Your task to perform on an android device: What is the news today? Image 0: 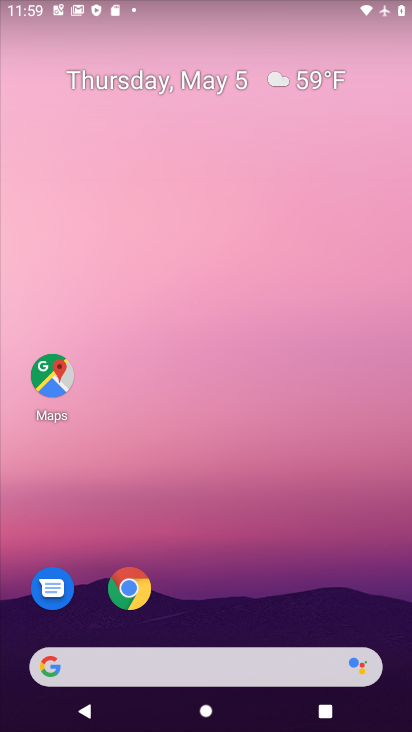
Step 0: drag from (9, 234) to (406, 208)
Your task to perform on an android device: What is the news today? Image 1: 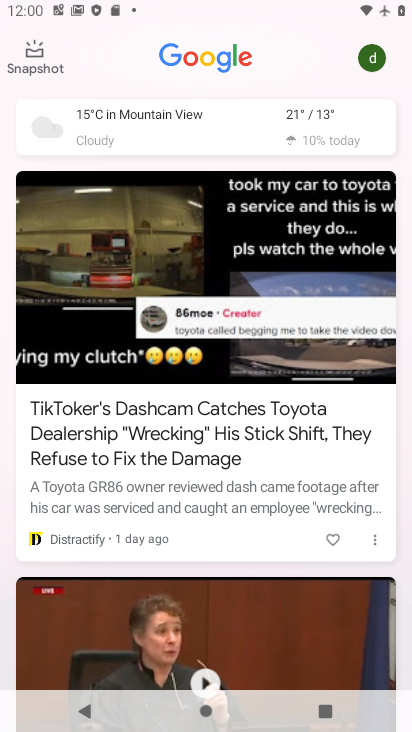
Step 1: task complete